Your task to perform on an android device: Open Chrome and go to the settings page Image 0: 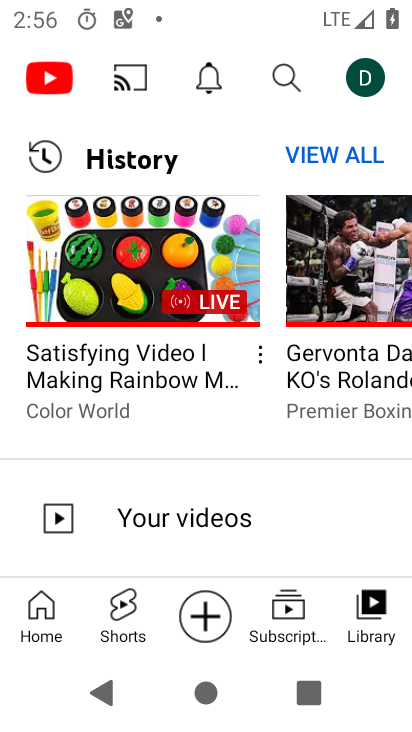
Step 0: press home button
Your task to perform on an android device: Open Chrome and go to the settings page Image 1: 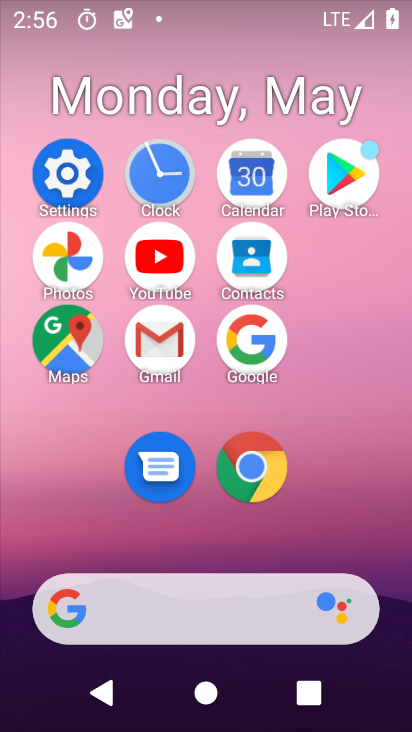
Step 1: click (271, 469)
Your task to perform on an android device: Open Chrome and go to the settings page Image 2: 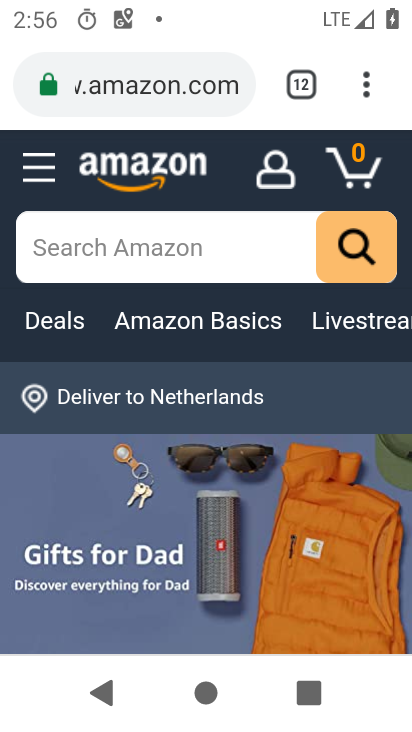
Step 2: click (375, 88)
Your task to perform on an android device: Open Chrome and go to the settings page Image 3: 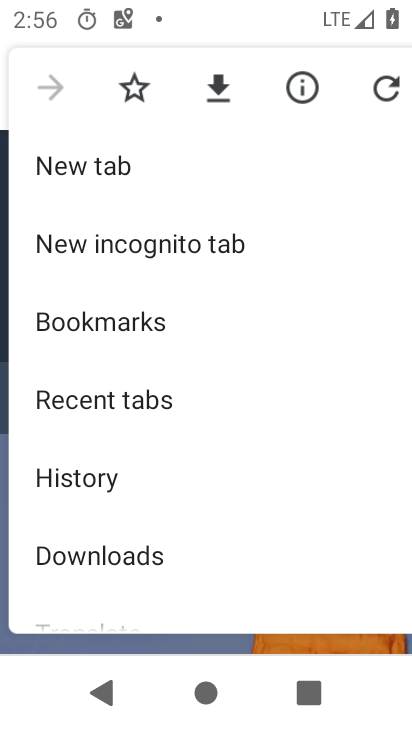
Step 3: drag from (259, 401) to (256, 131)
Your task to perform on an android device: Open Chrome and go to the settings page Image 4: 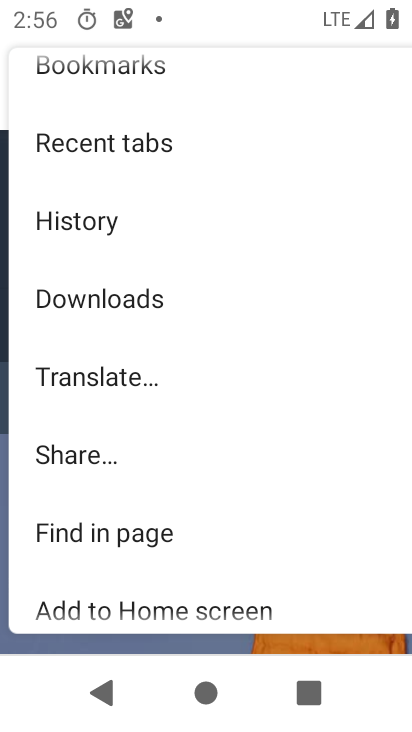
Step 4: drag from (313, 513) to (254, 165)
Your task to perform on an android device: Open Chrome and go to the settings page Image 5: 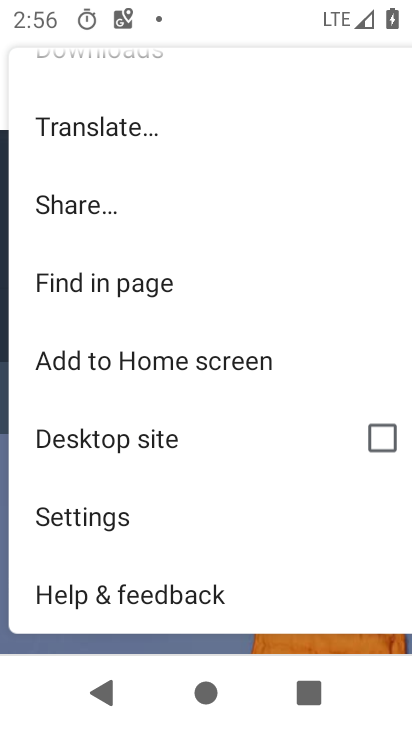
Step 5: click (102, 514)
Your task to perform on an android device: Open Chrome and go to the settings page Image 6: 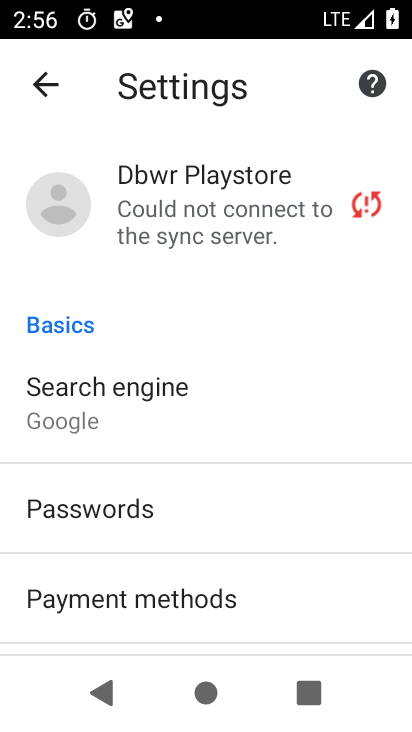
Step 6: task complete